Your task to perform on an android device: What's the weather going to be tomorrow? Image 0: 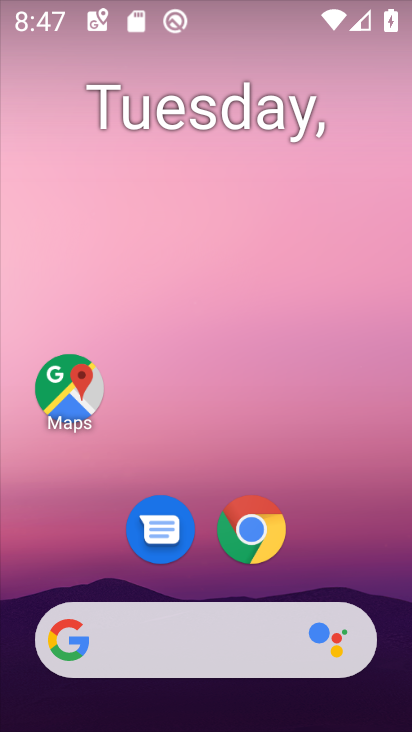
Step 0: click (169, 636)
Your task to perform on an android device: What's the weather going to be tomorrow? Image 1: 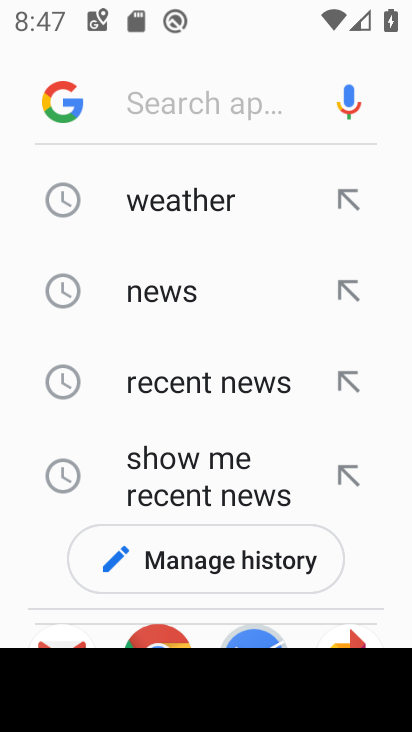
Step 1: click (170, 202)
Your task to perform on an android device: What's the weather going to be tomorrow? Image 2: 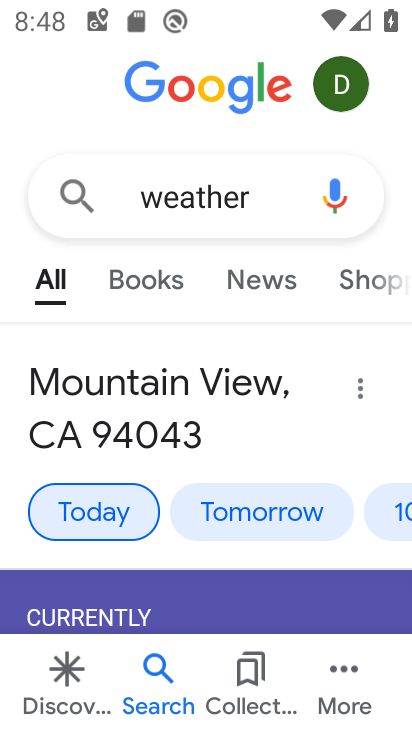
Step 2: click (221, 525)
Your task to perform on an android device: What's the weather going to be tomorrow? Image 3: 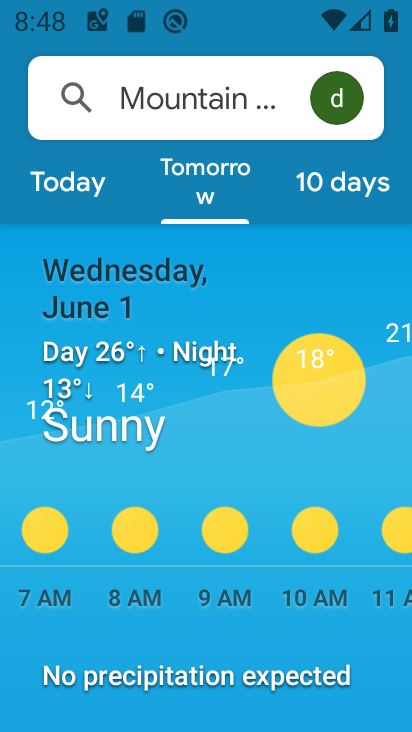
Step 3: task complete